Your task to perform on an android device: Go to settings Image 0: 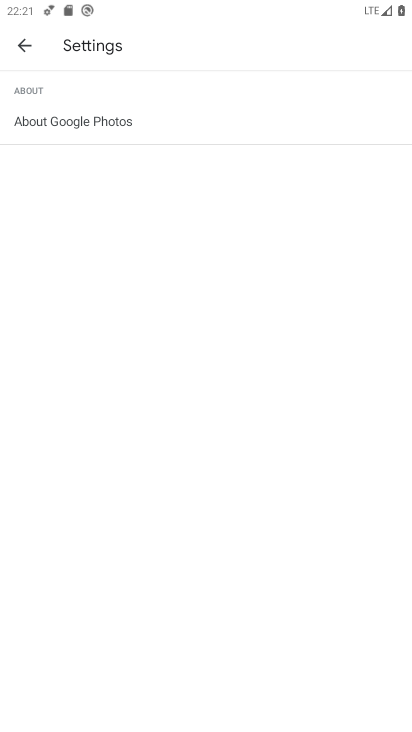
Step 0: press home button
Your task to perform on an android device: Go to settings Image 1: 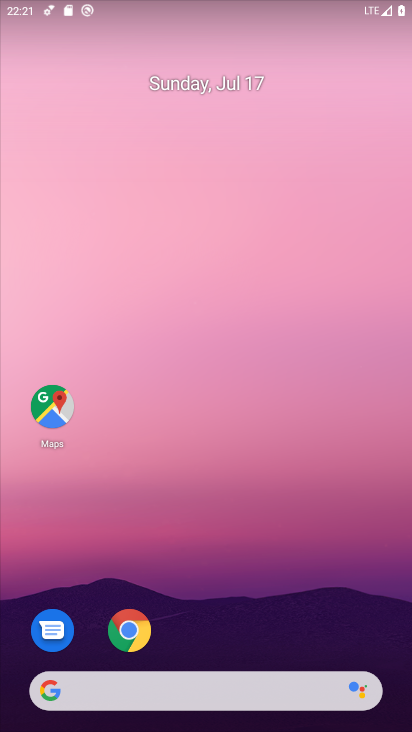
Step 1: drag from (229, 657) to (255, 67)
Your task to perform on an android device: Go to settings Image 2: 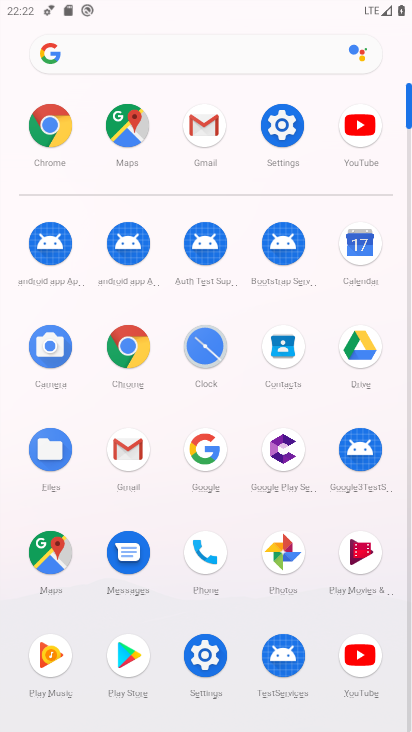
Step 2: click (198, 648)
Your task to perform on an android device: Go to settings Image 3: 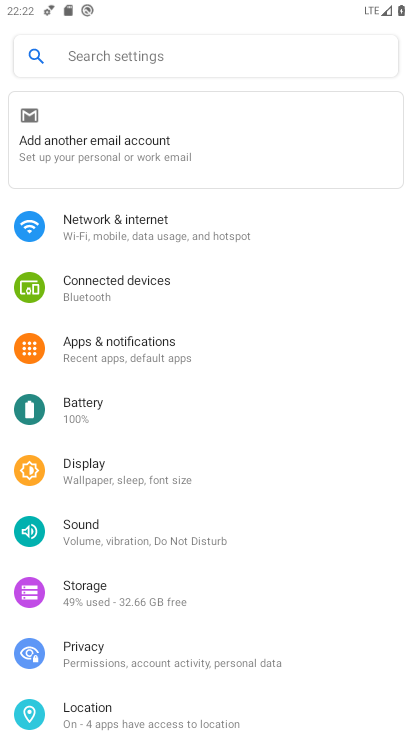
Step 3: task complete